Your task to perform on an android device: Search for pizza restaurants on Maps Image 0: 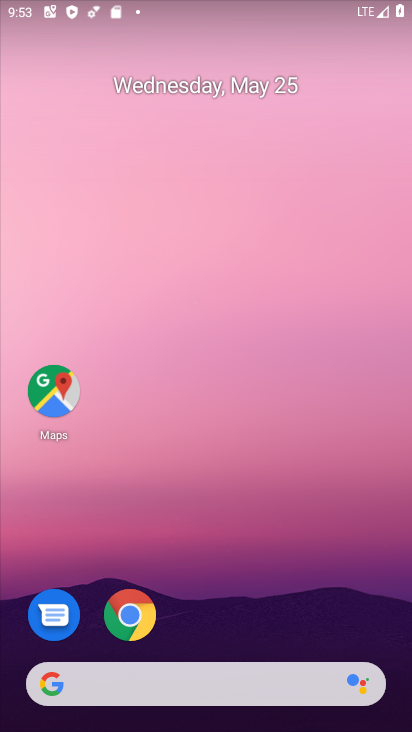
Step 0: click (64, 386)
Your task to perform on an android device: Search for pizza restaurants on Maps Image 1: 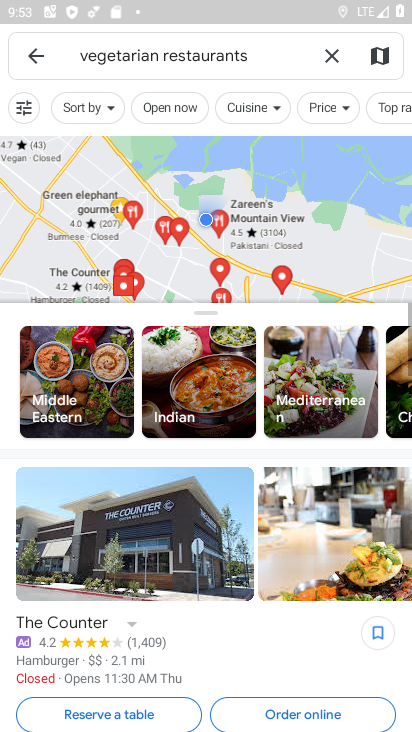
Step 1: click (329, 52)
Your task to perform on an android device: Search for pizza restaurants on Maps Image 2: 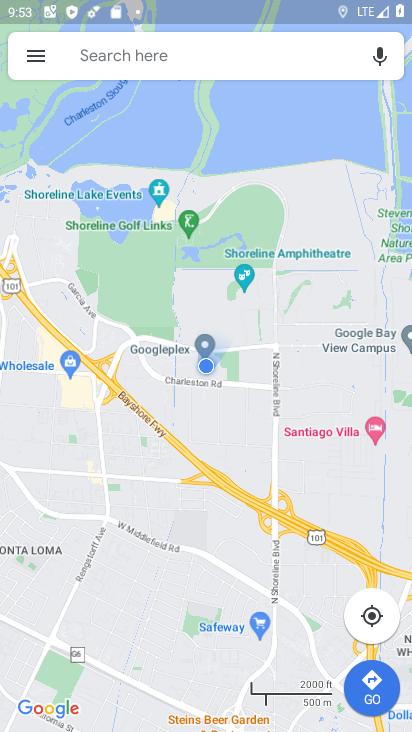
Step 2: click (199, 54)
Your task to perform on an android device: Search for pizza restaurants on Maps Image 3: 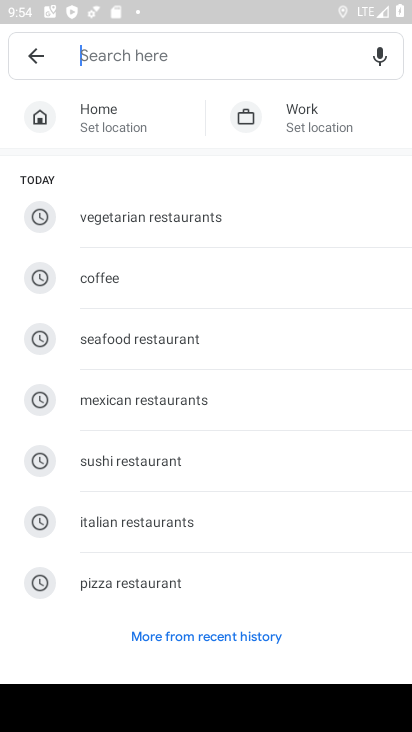
Step 3: click (164, 577)
Your task to perform on an android device: Search for pizza restaurants on Maps Image 4: 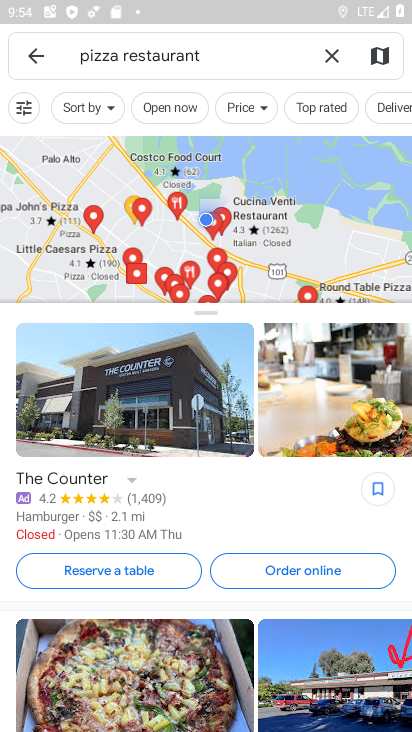
Step 4: task complete